Your task to perform on an android device: View the shopping cart on amazon.com. Search for usb-a to usb-b on amazon.com, select the first entry, add it to the cart, then select checkout. Image 0: 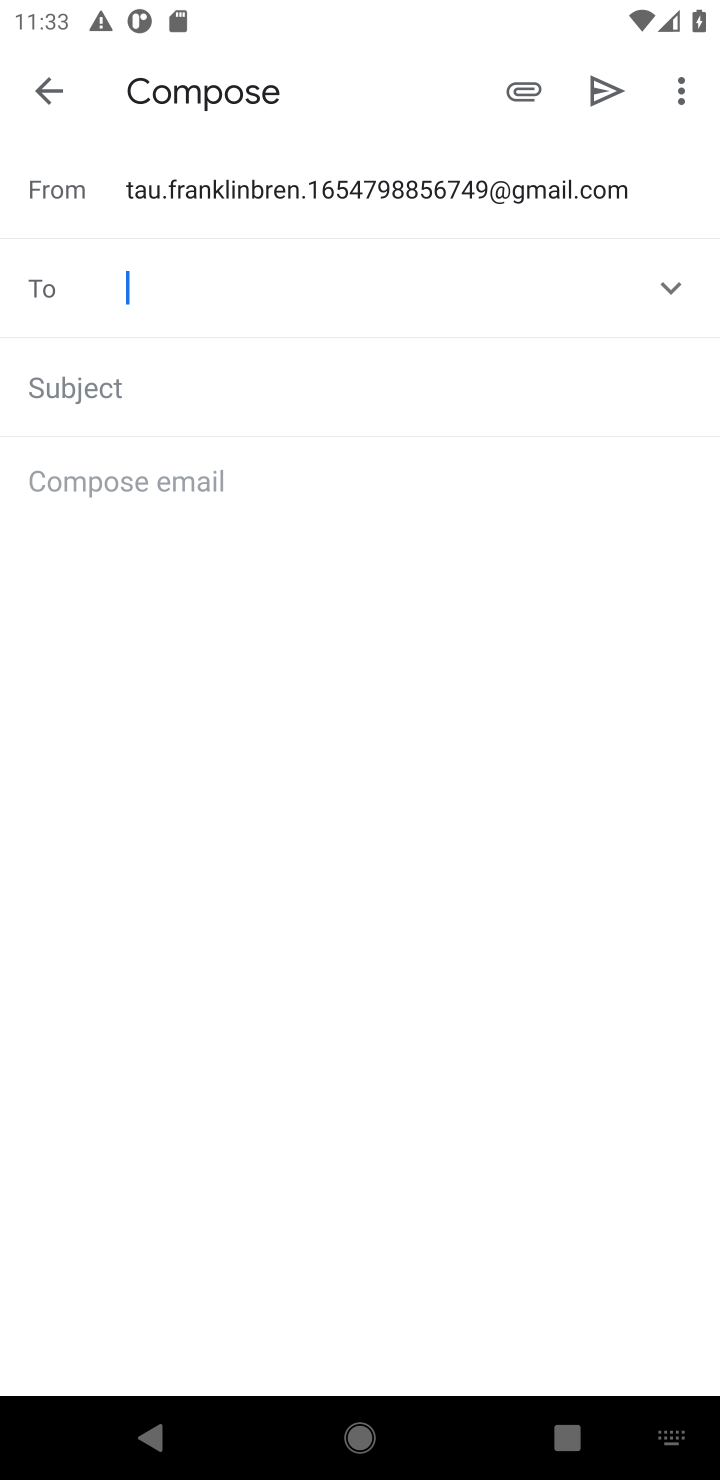
Step 0: press home button
Your task to perform on an android device: View the shopping cart on amazon.com. Search for usb-a to usb-b on amazon.com, select the first entry, add it to the cart, then select checkout. Image 1: 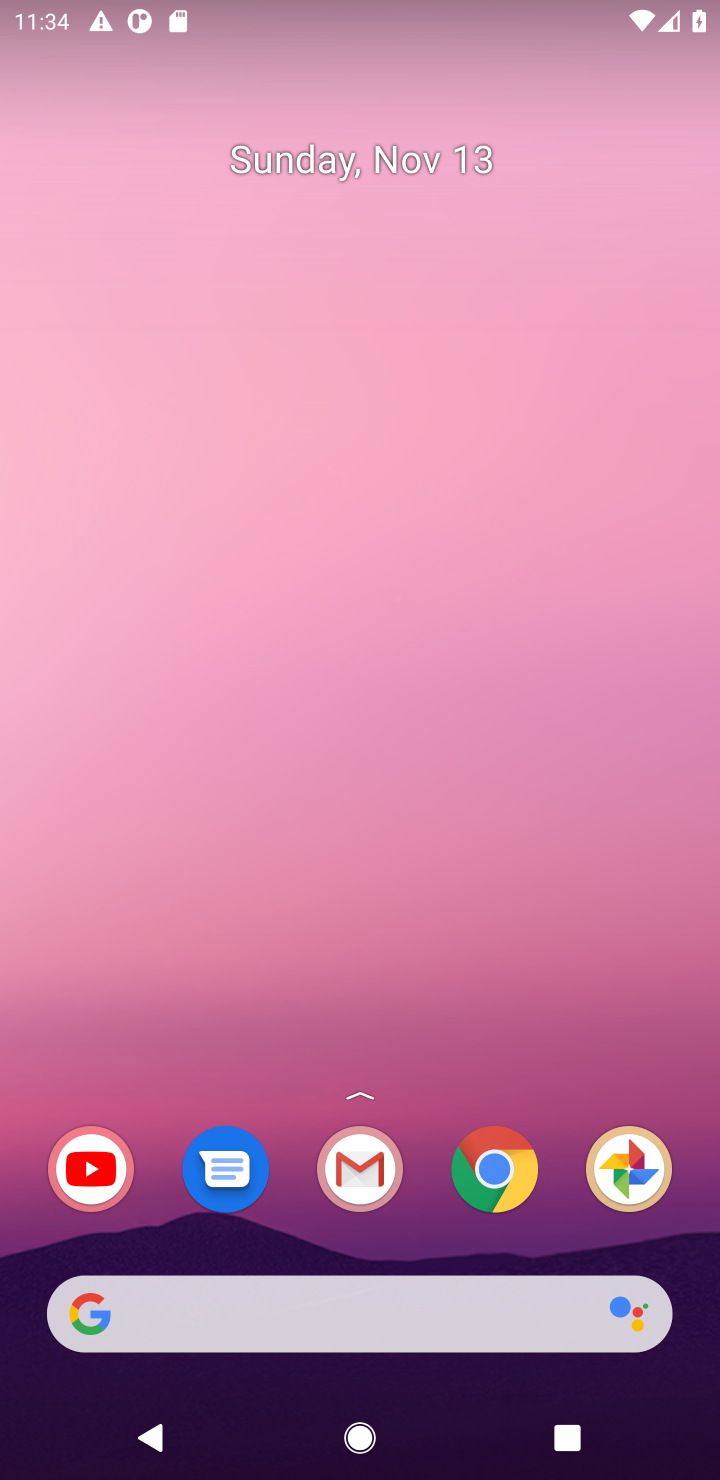
Step 1: drag from (448, 1236) to (256, 78)
Your task to perform on an android device: View the shopping cart on amazon.com. Search for usb-a to usb-b on amazon.com, select the first entry, add it to the cart, then select checkout. Image 2: 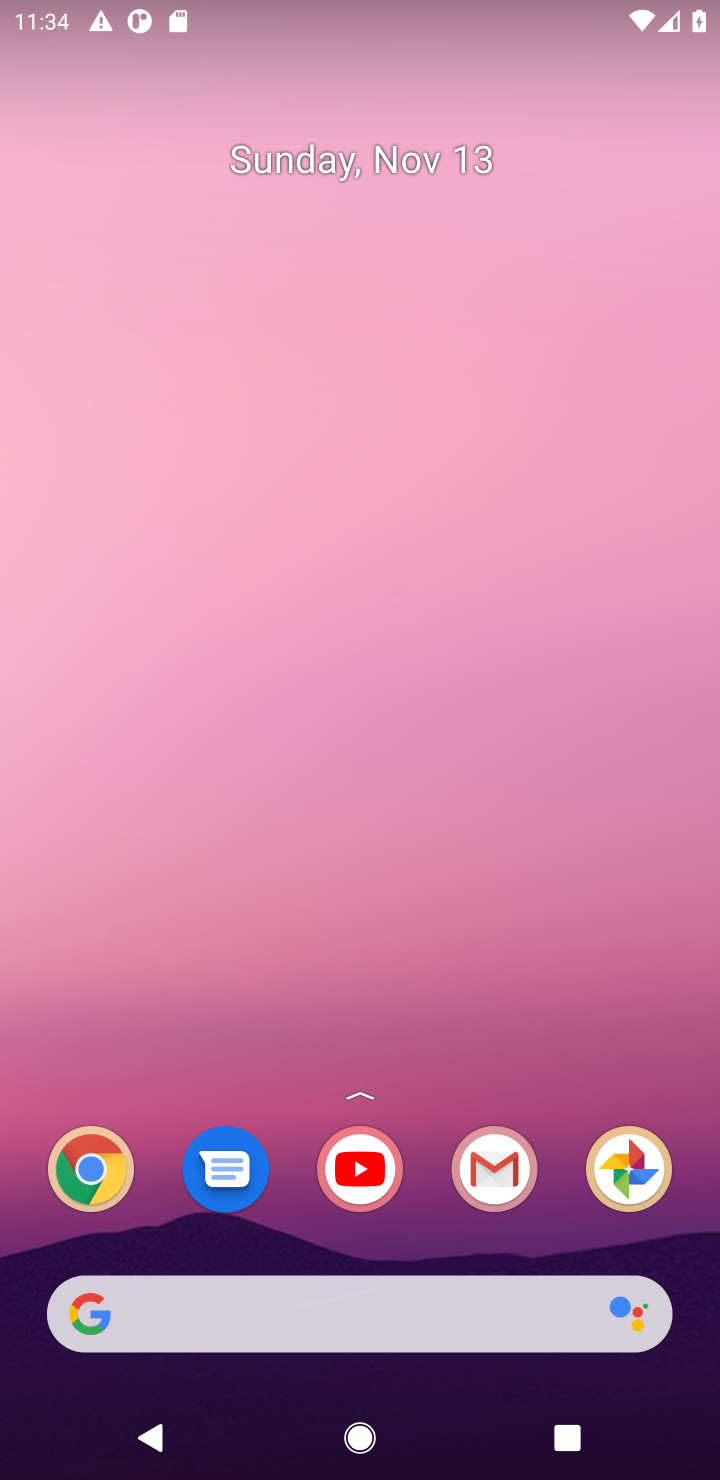
Step 2: drag from (440, 1240) to (426, 141)
Your task to perform on an android device: View the shopping cart on amazon.com. Search for usb-a to usb-b on amazon.com, select the first entry, add it to the cart, then select checkout. Image 3: 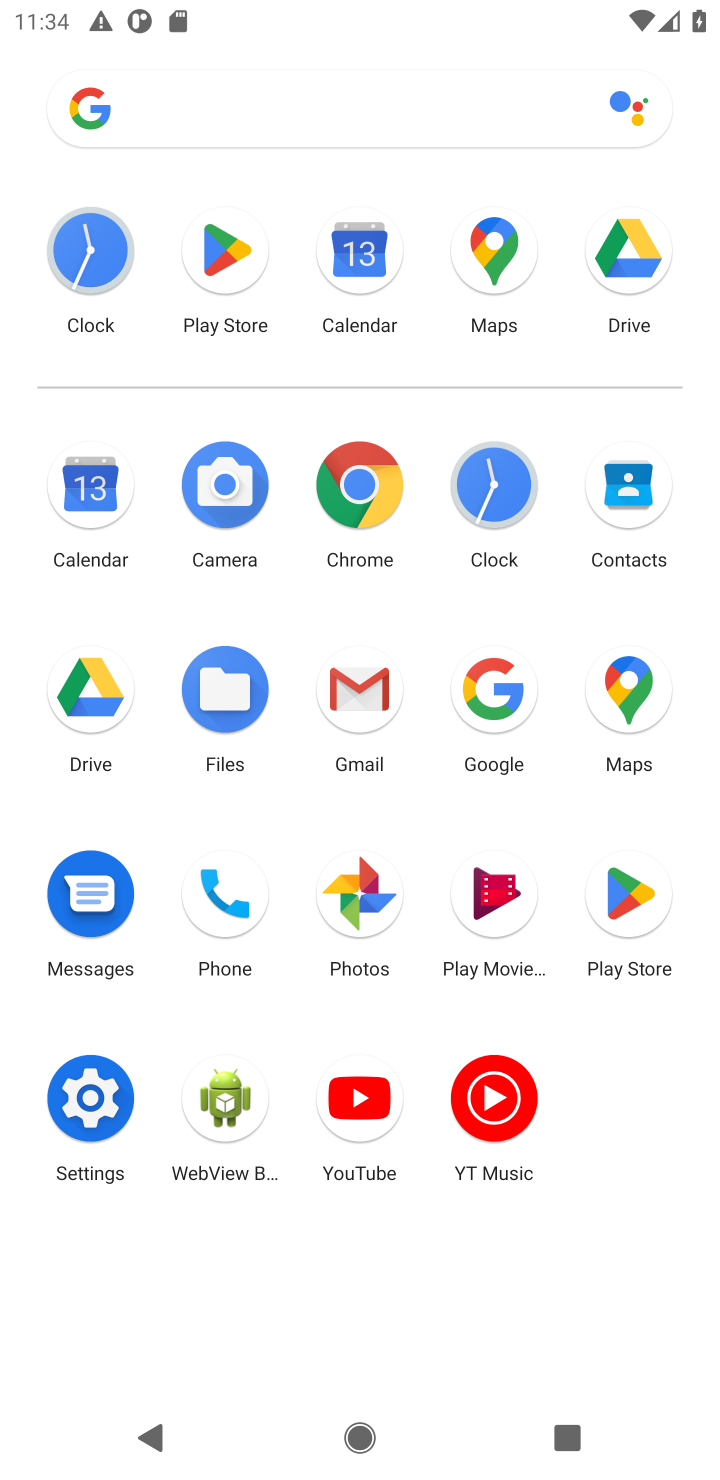
Step 3: click (370, 486)
Your task to perform on an android device: View the shopping cart on amazon.com. Search for usb-a to usb-b on amazon.com, select the first entry, add it to the cart, then select checkout. Image 4: 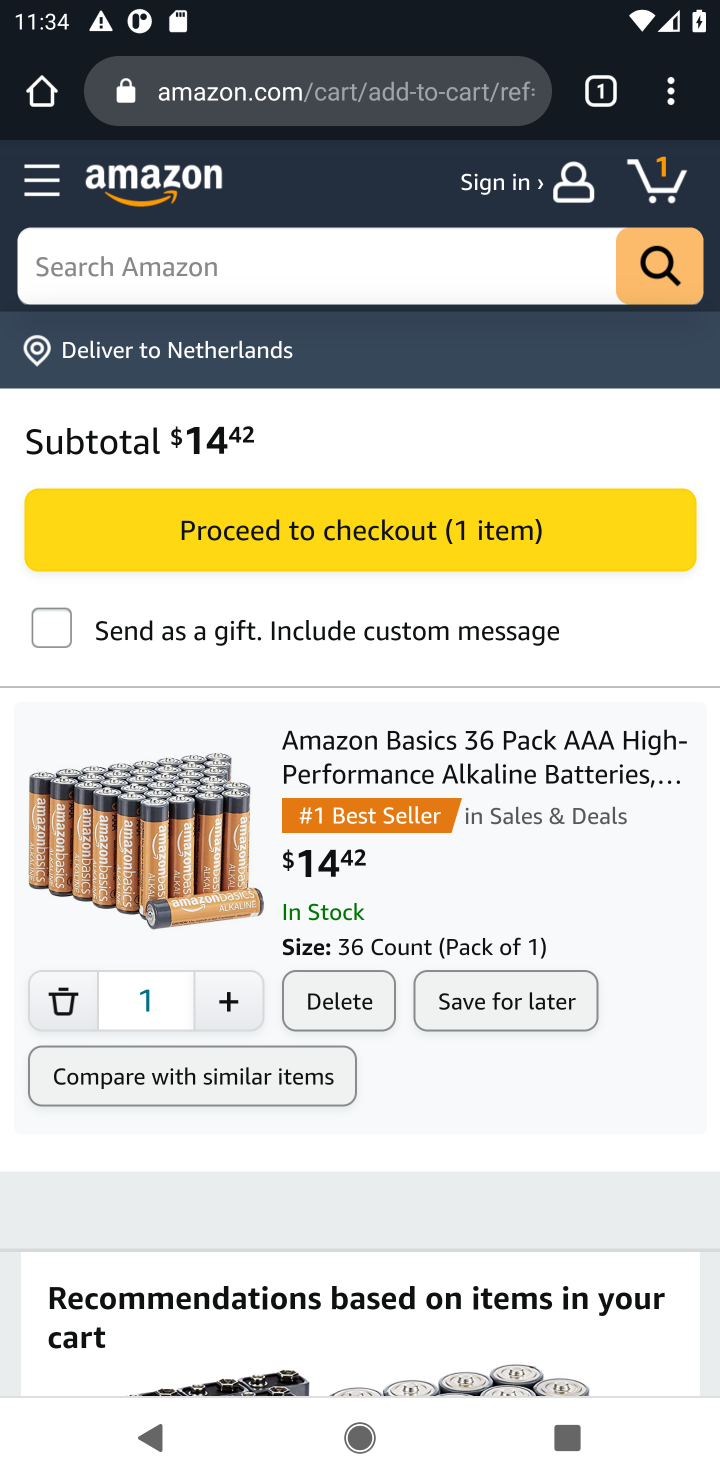
Step 4: click (662, 184)
Your task to perform on an android device: View the shopping cart on amazon.com. Search for usb-a to usb-b on amazon.com, select the first entry, add it to the cart, then select checkout. Image 5: 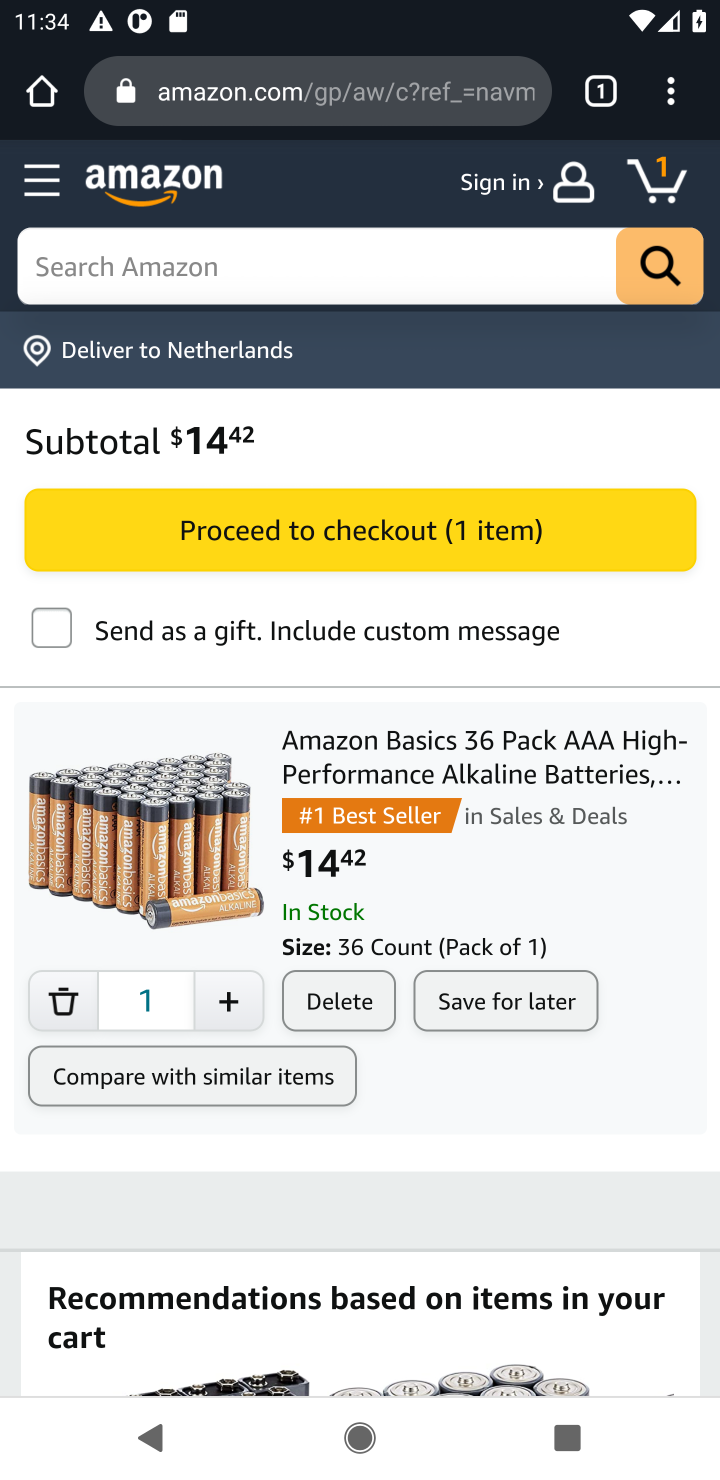
Step 5: click (486, 254)
Your task to perform on an android device: View the shopping cart on amazon.com. Search for usb-a to usb-b on amazon.com, select the first entry, add it to the cart, then select checkout. Image 6: 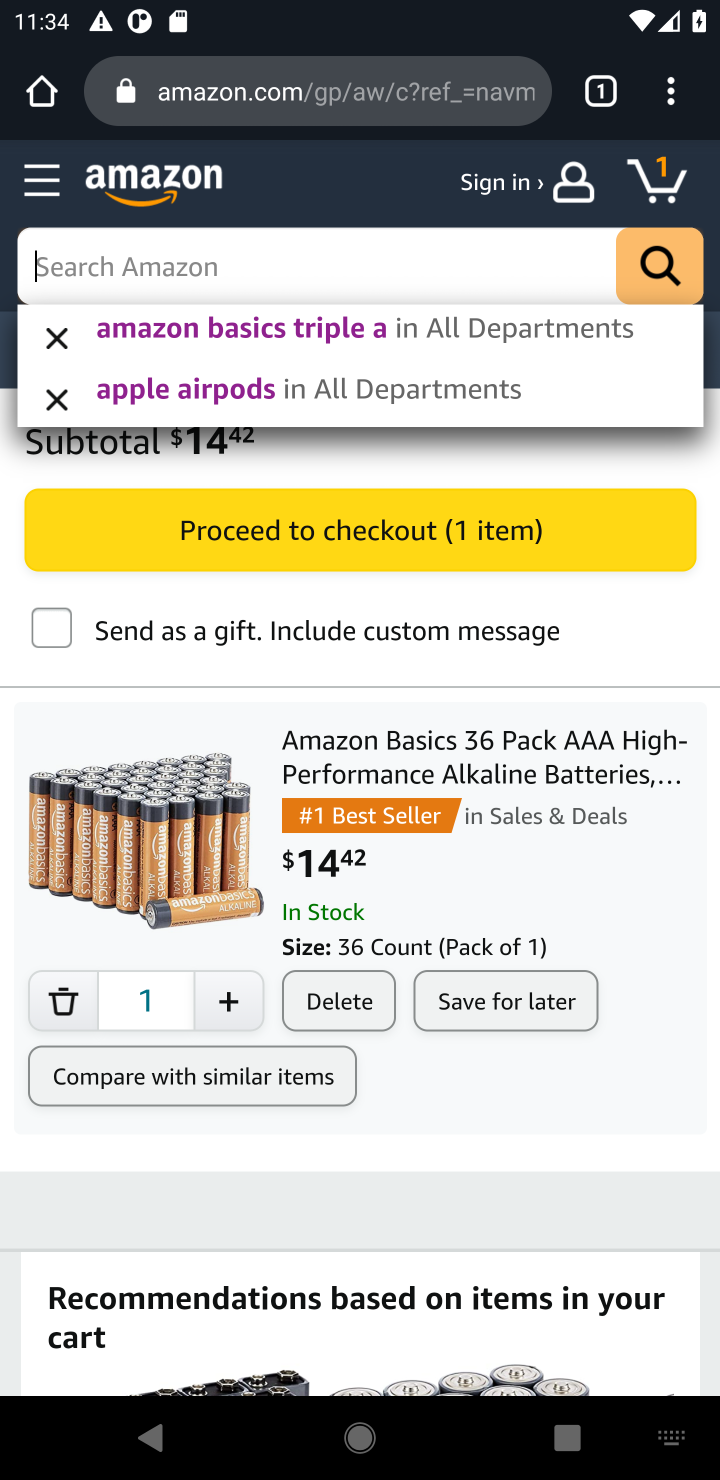
Step 6: type "usb-a to usb-b"
Your task to perform on an android device: View the shopping cart on amazon.com. Search for usb-a to usb-b on amazon.com, select the first entry, add it to the cart, then select checkout. Image 7: 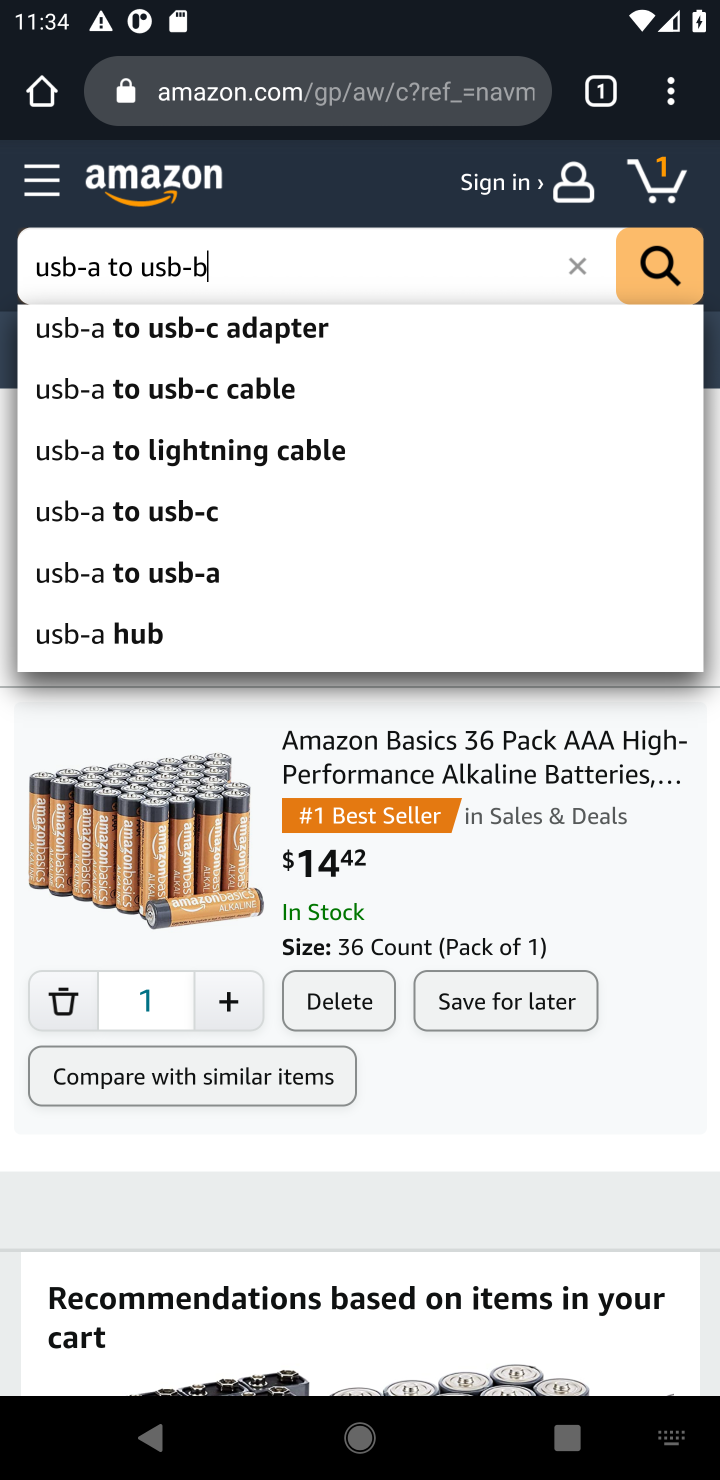
Step 7: press enter
Your task to perform on an android device: View the shopping cart on amazon.com. Search for usb-a to usb-b on amazon.com, select the first entry, add it to the cart, then select checkout. Image 8: 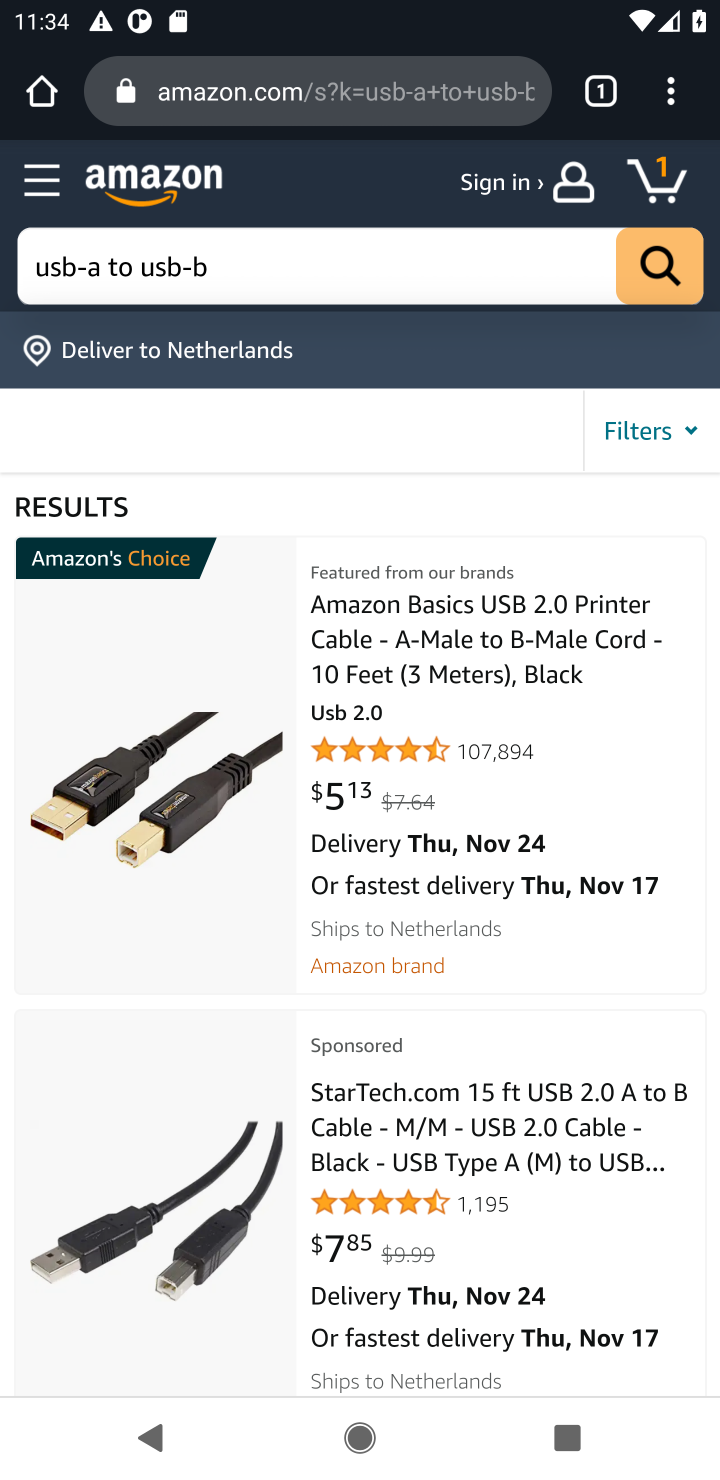
Step 8: drag from (321, 1354) to (490, 430)
Your task to perform on an android device: View the shopping cart on amazon.com. Search for usb-a to usb-b on amazon.com, select the first entry, add it to the cart, then select checkout. Image 9: 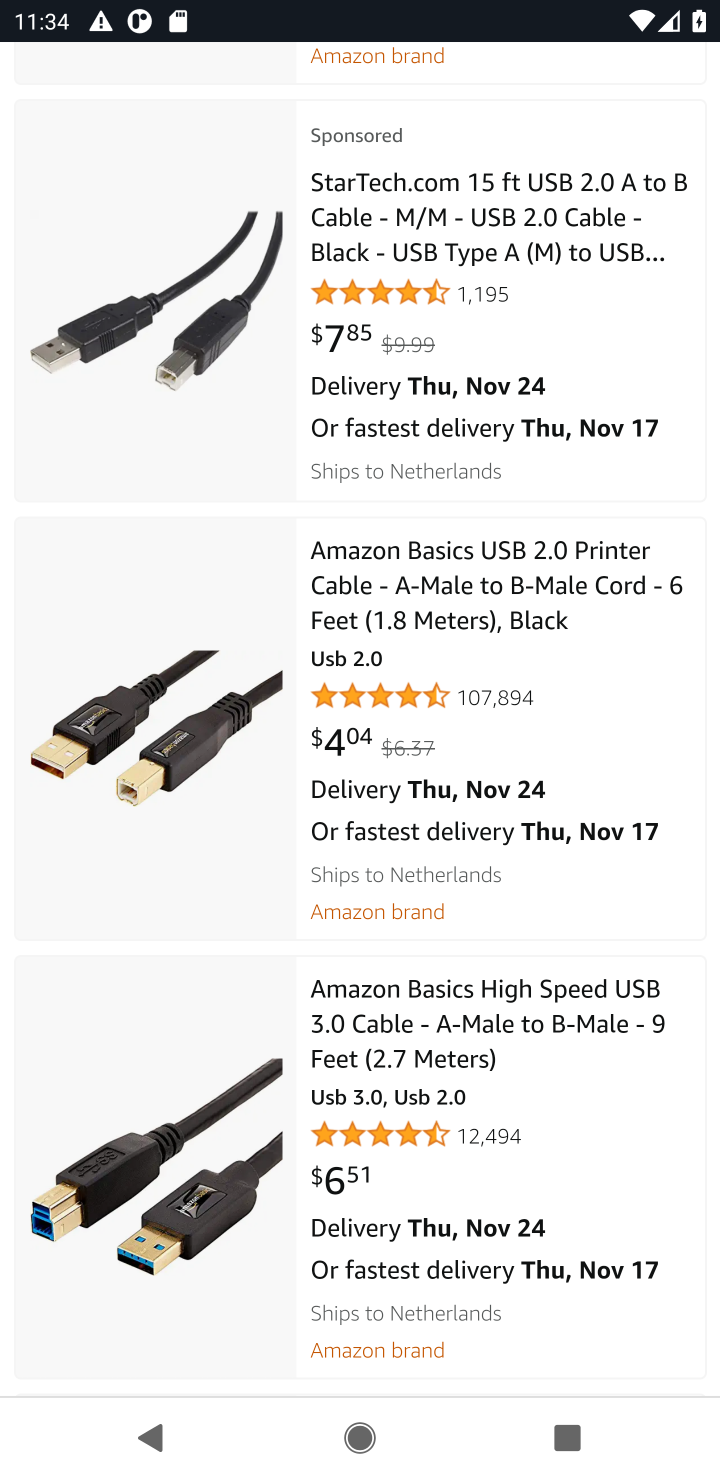
Step 9: click (453, 585)
Your task to perform on an android device: View the shopping cart on amazon.com. Search for usb-a to usb-b on amazon.com, select the first entry, add it to the cart, then select checkout. Image 10: 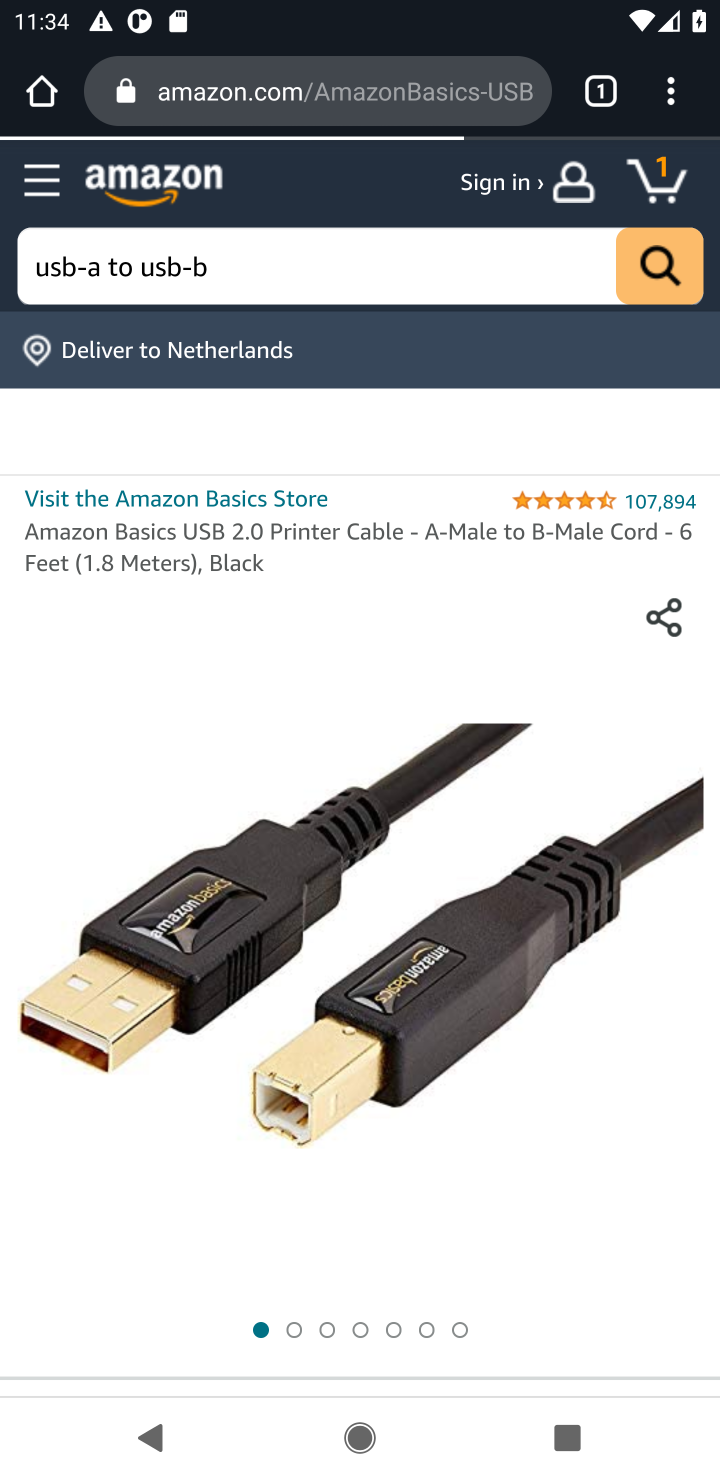
Step 10: drag from (461, 1166) to (436, 361)
Your task to perform on an android device: View the shopping cart on amazon.com. Search for usb-a to usb-b on amazon.com, select the first entry, add it to the cart, then select checkout. Image 11: 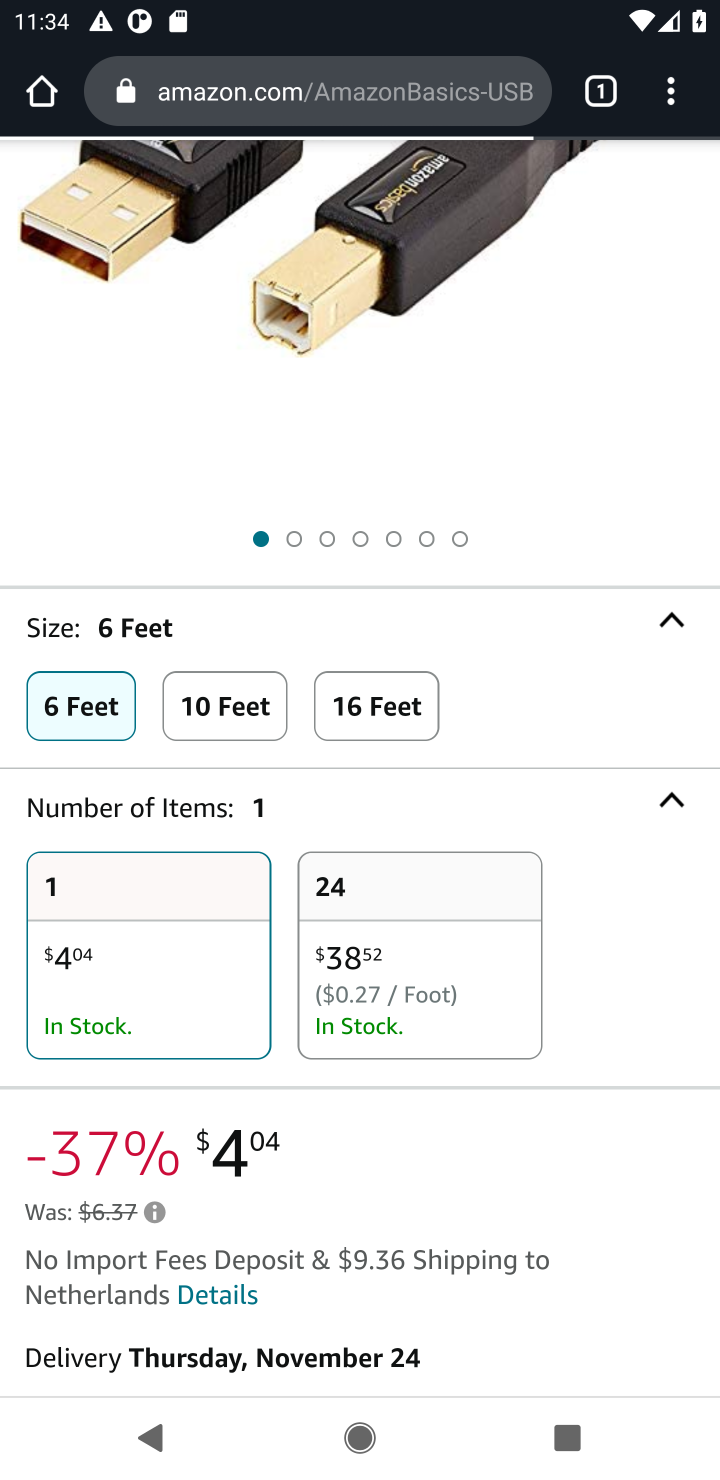
Step 11: drag from (349, 1164) to (469, 522)
Your task to perform on an android device: View the shopping cart on amazon.com. Search for usb-a to usb-b on amazon.com, select the first entry, add it to the cart, then select checkout. Image 12: 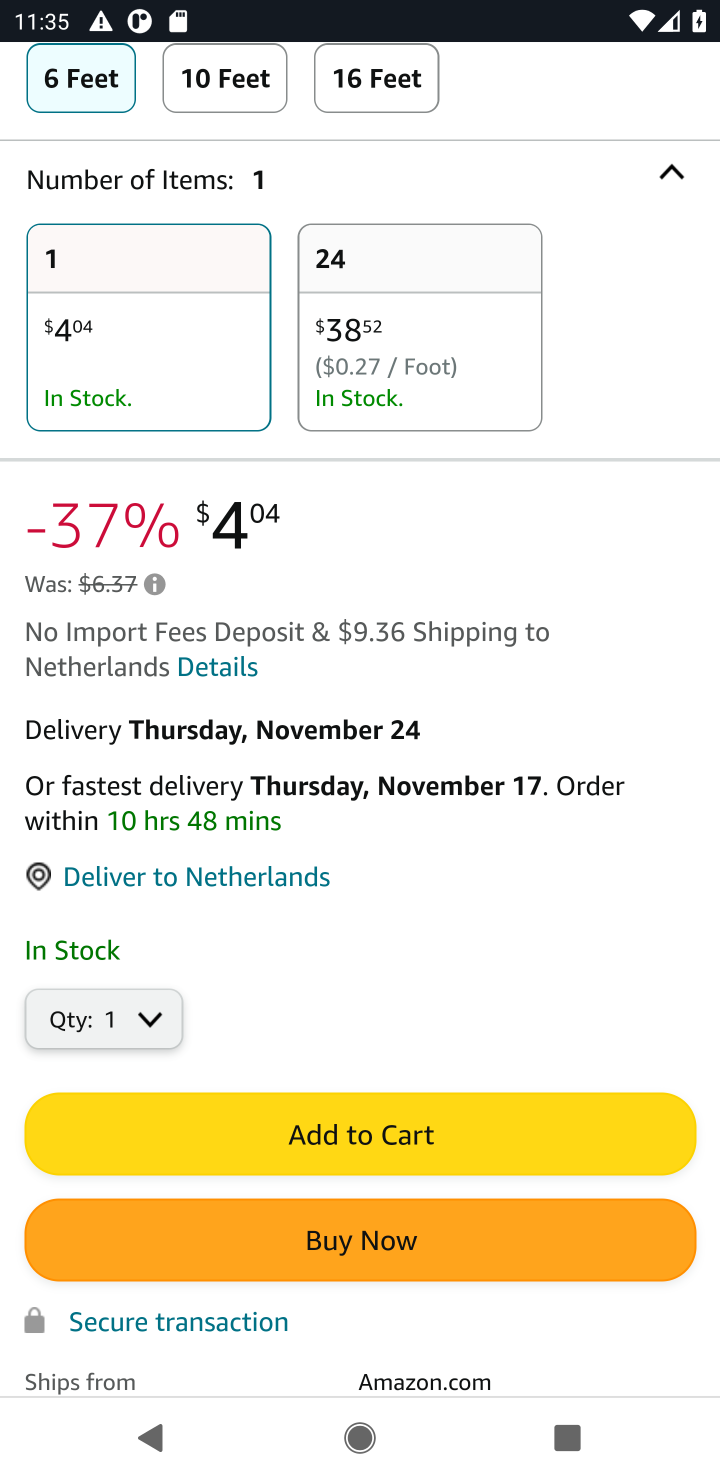
Step 12: click (418, 1135)
Your task to perform on an android device: View the shopping cart on amazon.com. Search for usb-a to usb-b on amazon.com, select the first entry, add it to the cart, then select checkout. Image 13: 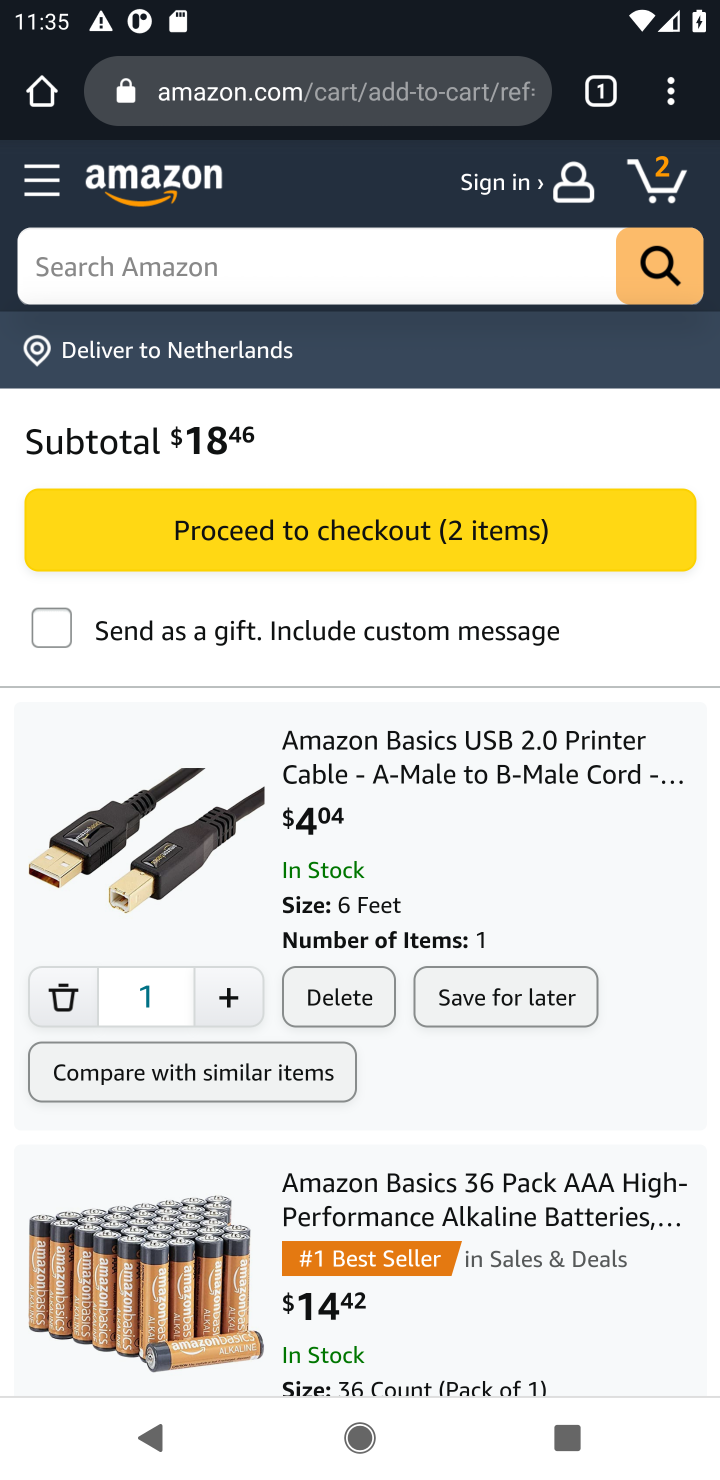
Step 13: click (446, 539)
Your task to perform on an android device: View the shopping cart on amazon.com. Search for usb-a to usb-b on amazon.com, select the first entry, add it to the cart, then select checkout. Image 14: 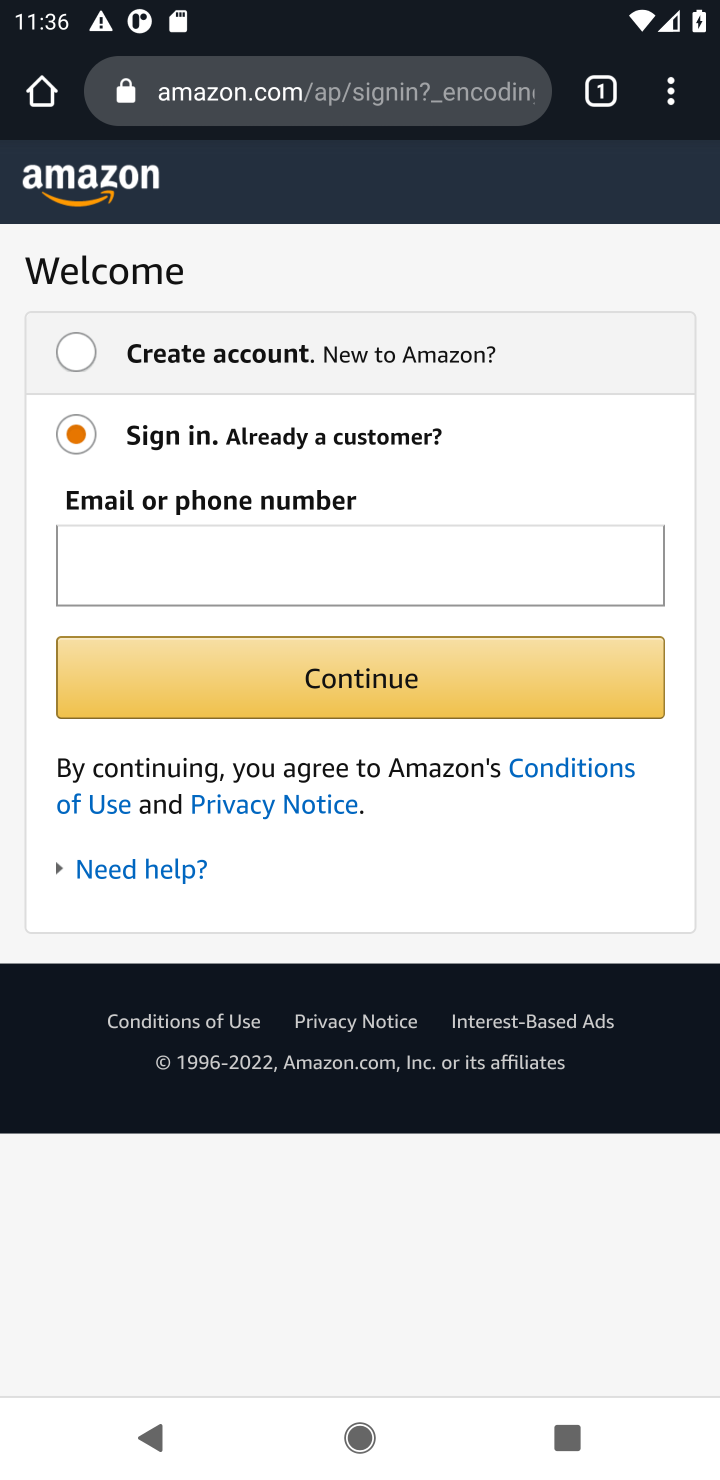
Step 14: task complete